Your task to perform on an android device: Open calendar and show me the first week of next month Image 0: 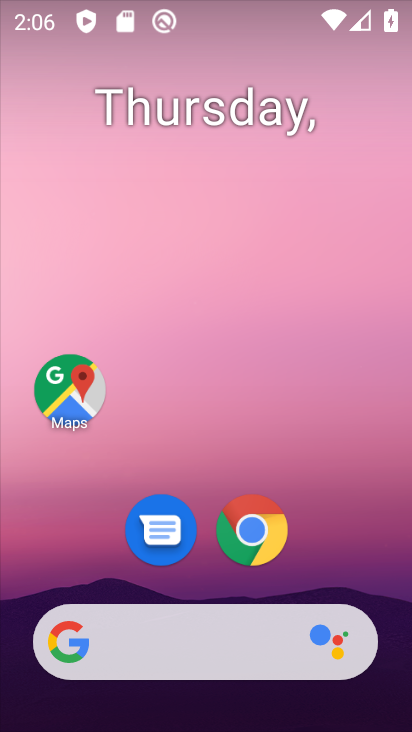
Step 0: drag from (209, 721) to (165, 0)
Your task to perform on an android device: Open calendar and show me the first week of next month Image 1: 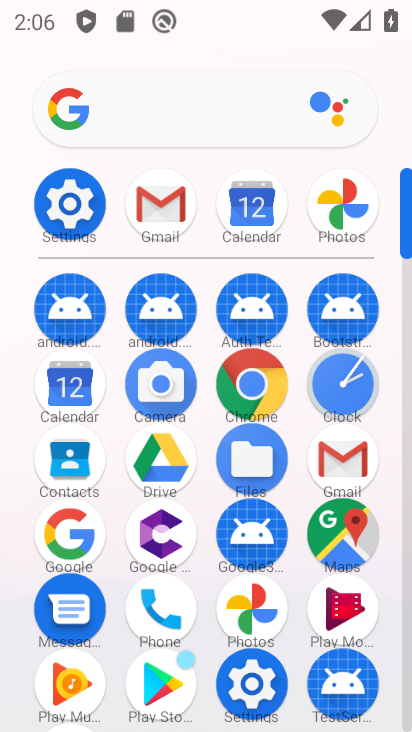
Step 1: click (77, 395)
Your task to perform on an android device: Open calendar and show me the first week of next month Image 2: 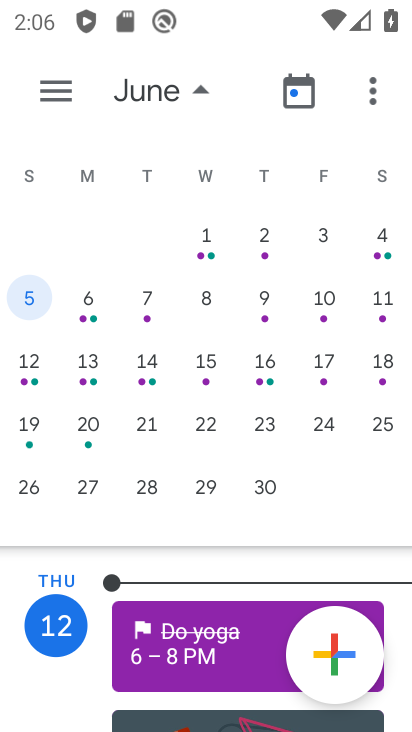
Step 2: drag from (117, 314) to (386, 272)
Your task to perform on an android device: Open calendar and show me the first week of next month Image 3: 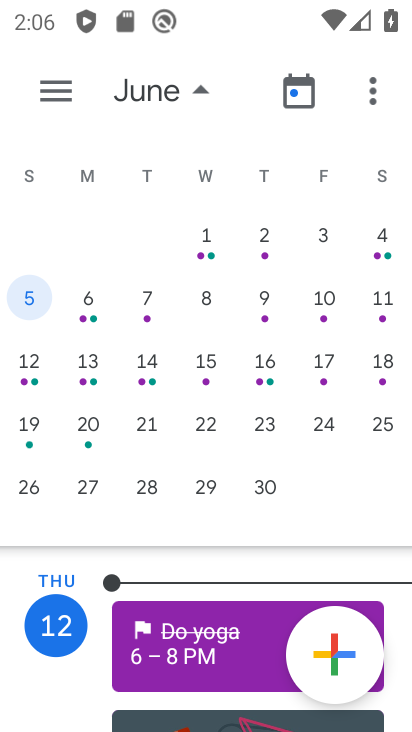
Step 3: click (204, 229)
Your task to perform on an android device: Open calendar and show me the first week of next month Image 4: 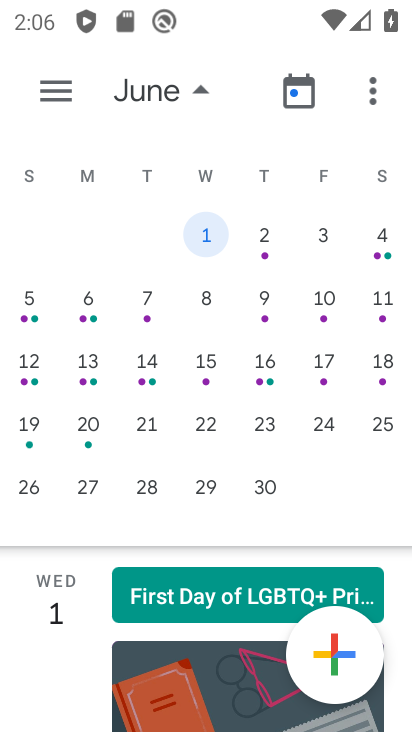
Step 4: task complete